Your task to perform on an android device: Open Google Image 0: 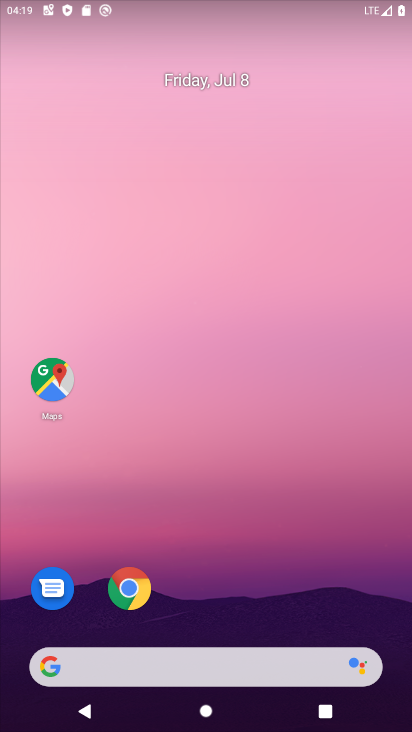
Step 0: click (162, 665)
Your task to perform on an android device: Open Google Image 1: 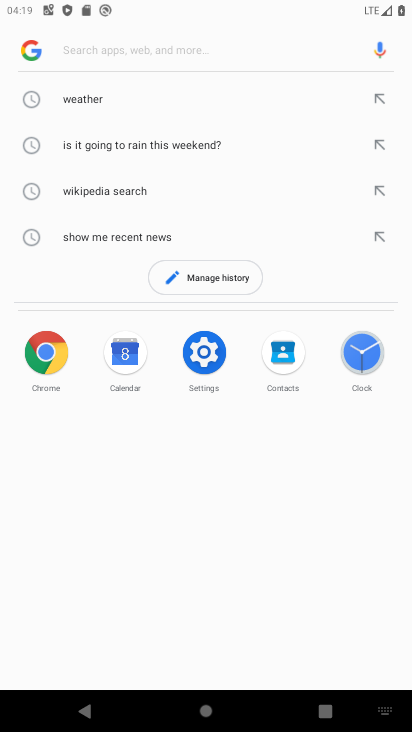
Step 1: task complete